Your task to perform on an android device: set default search engine in the chrome app Image 0: 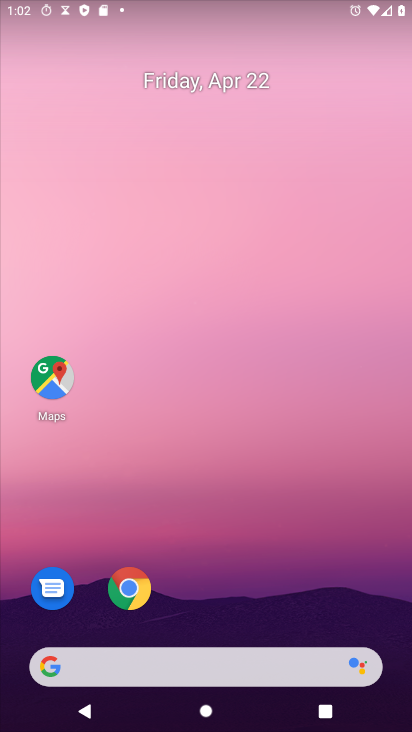
Step 0: drag from (261, 686) to (342, 208)
Your task to perform on an android device: set default search engine in the chrome app Image 1: 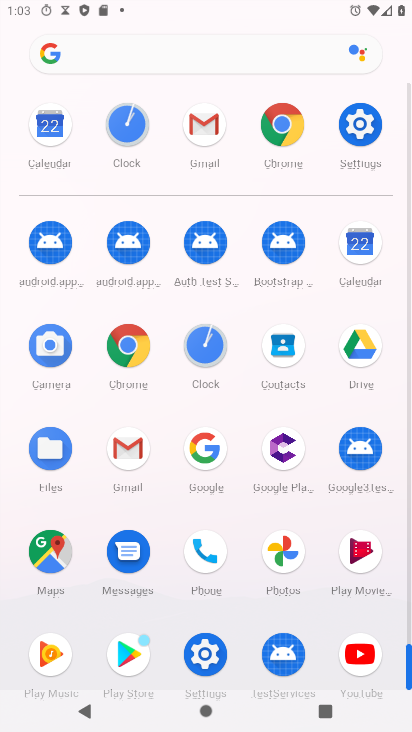
Step 1: click (290, 136)
Your task to perform on an android device: set default search engine in the chrome app Image 2: 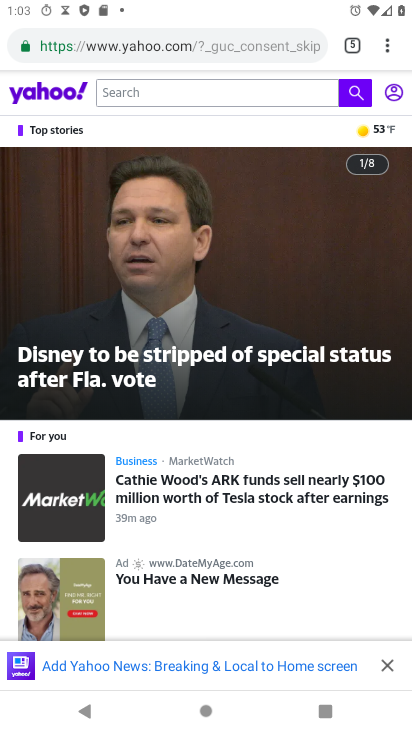
Step 2: click (386, 48)
Your task to perform on an android device: set default search engine in the chrome app Image 3: 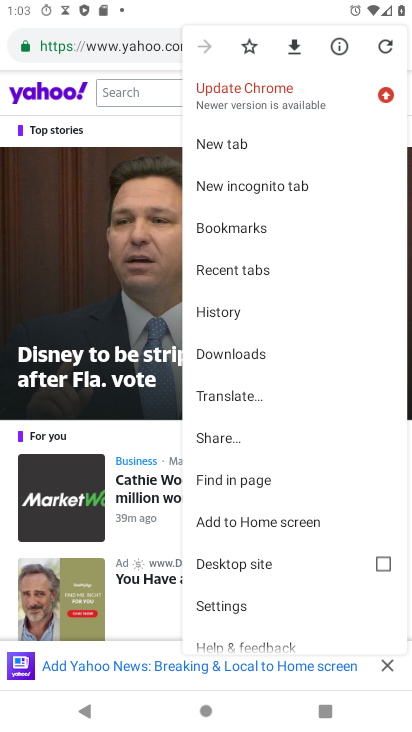
Step 3: click (216, 598)
Your task to perform on an android device: set default search engine in the chrome app Image 4: 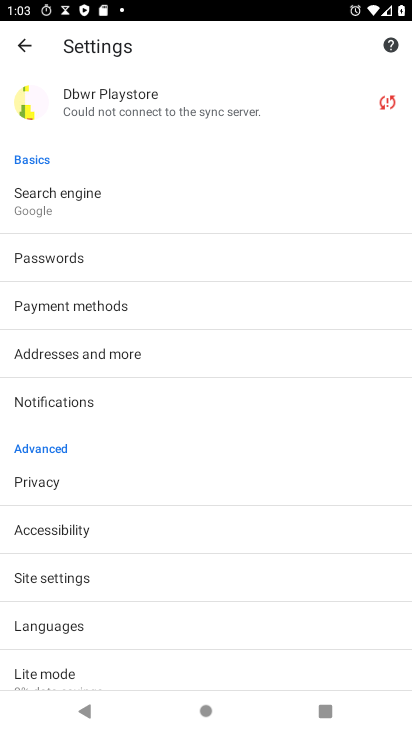
Step 4: click (102, 208)
Your task to perform on an android device: set default search engine in the chrome app Image 5: 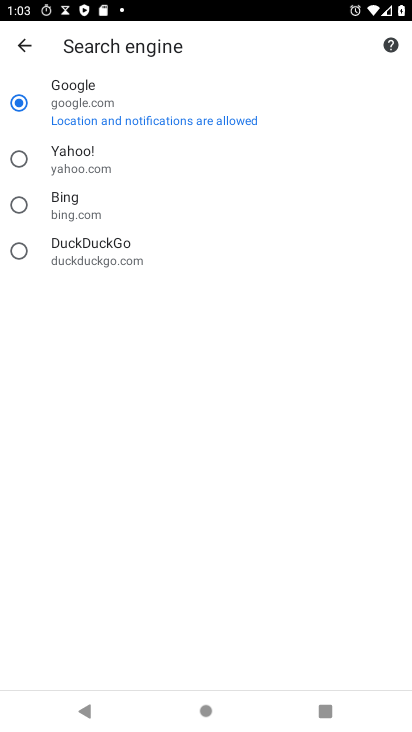
Step 5: task complete